Your task to perform on an android device: Do I have any events today? Image 0: 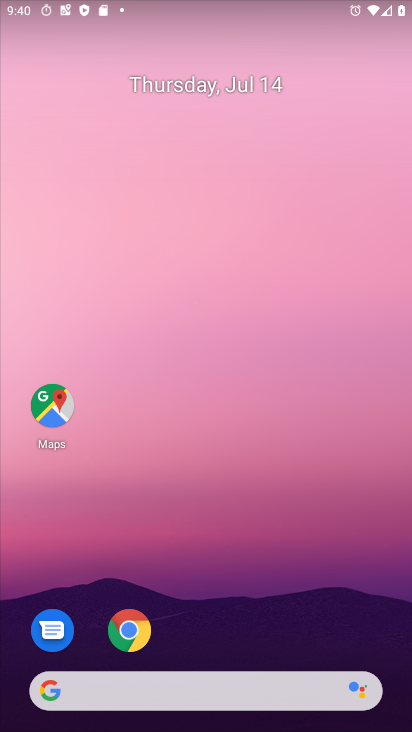
Step 0: drag from (238, 700) to (242, 226)
Your task to perform on an android device: Do I have any events today? Image 1: 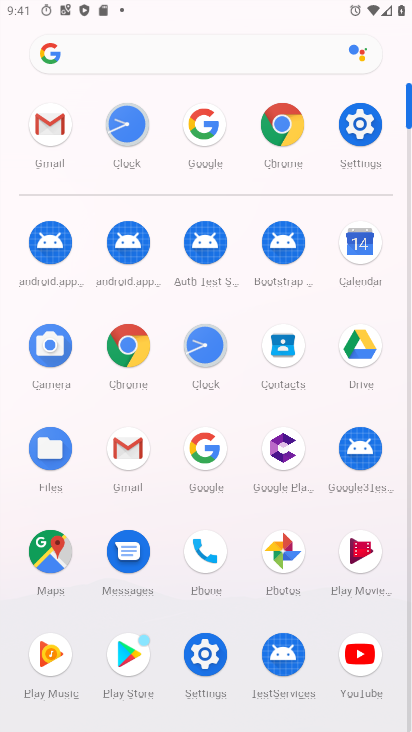
Step 1: click (353, 252)
Your task to perform on an android device: Do I have any events today? Image 2: 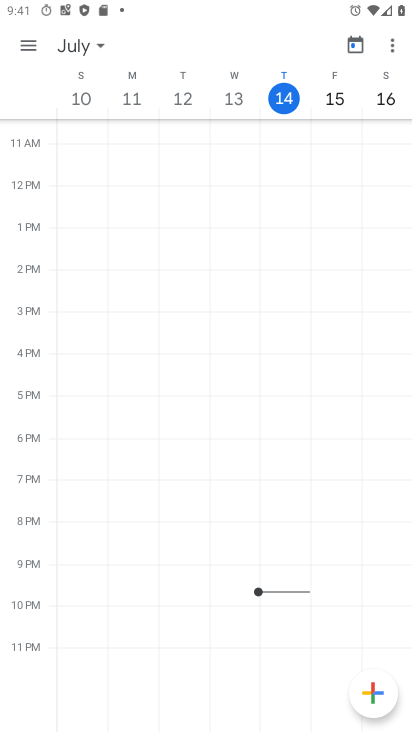
Step 2: click (27, 43)
Your task to perform on an android device: Do I have any events today? Image 3: 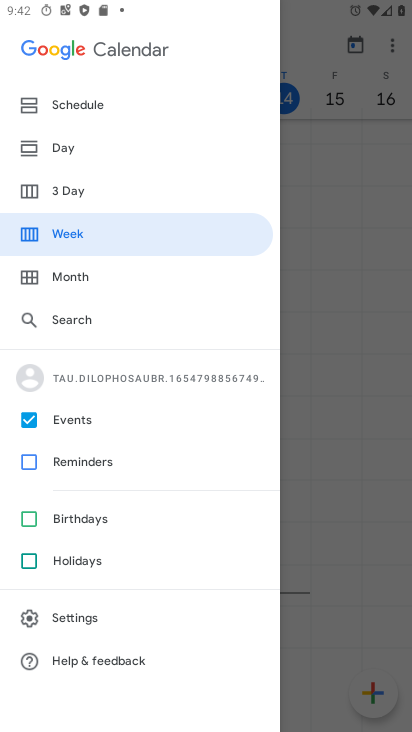
Step 3: click (63, 149)
Your task to perform on an android device: Do I have any events today? Image 4: 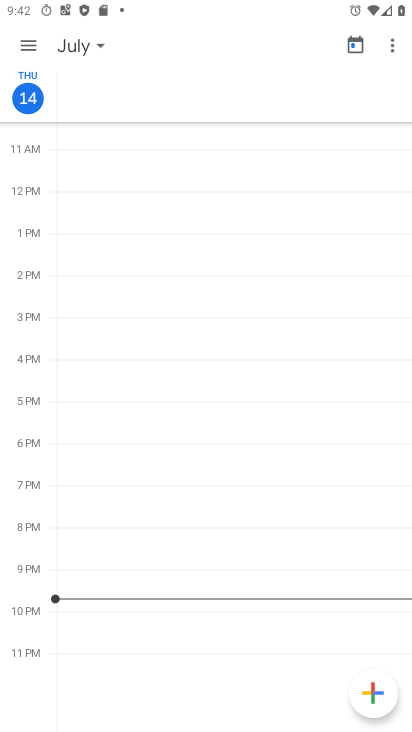
Step 4: task complete